Your task to perform on an android device: Open my contact list Image 0: 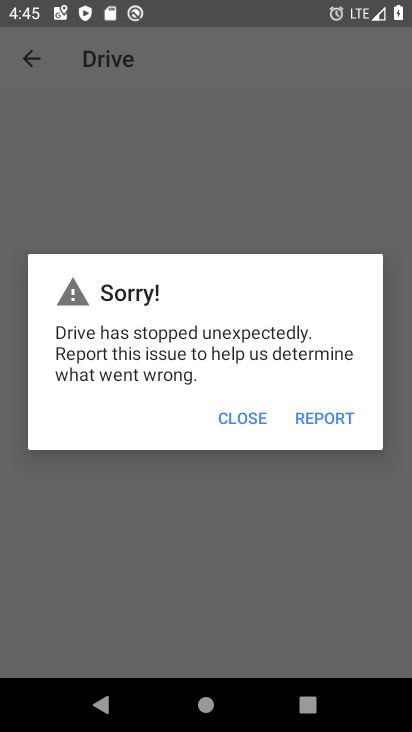
Step 0: press home button
Your task to perform on an android device: Open my contact list Image 1: 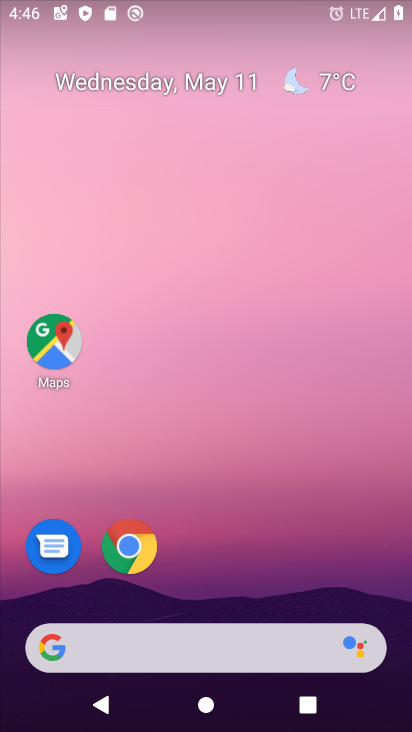
Step 1: drag from (182, 628) to (205, 7)
Your task to perform on an android device: Open my contact list Image 2: 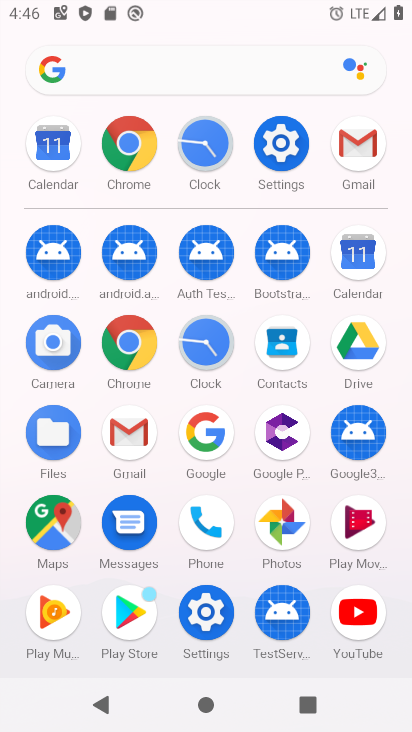
Step 2: click (205, 340)
Your task to perform on an android device: Open my contact list Image 3: 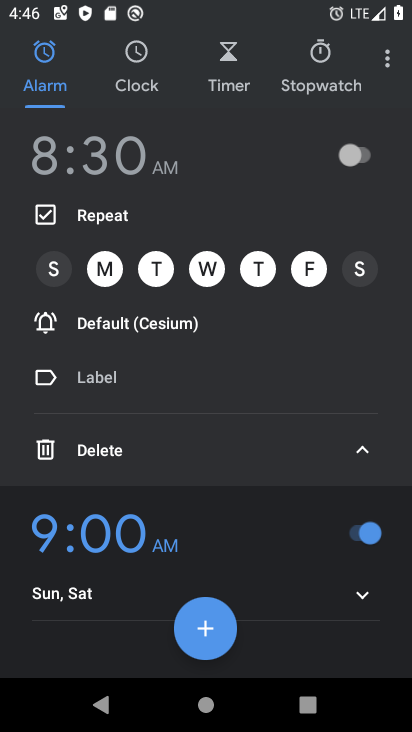
Step 3: press home button
Your task to perform on an android device: Open my contact list Image 4: 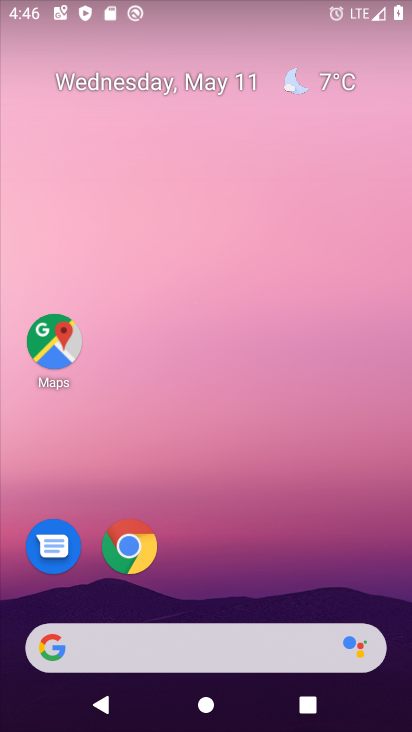
Step 4: drag from (292, 582) to (297, 0)
Your task to perform on an android device: Open my contact list Image 5: 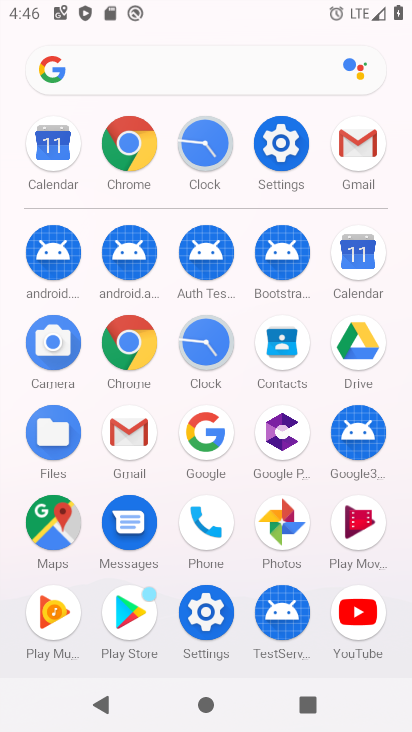
Step 5: click (280, 351)
Your task to perform on an android device: Open my contact list Image 6: 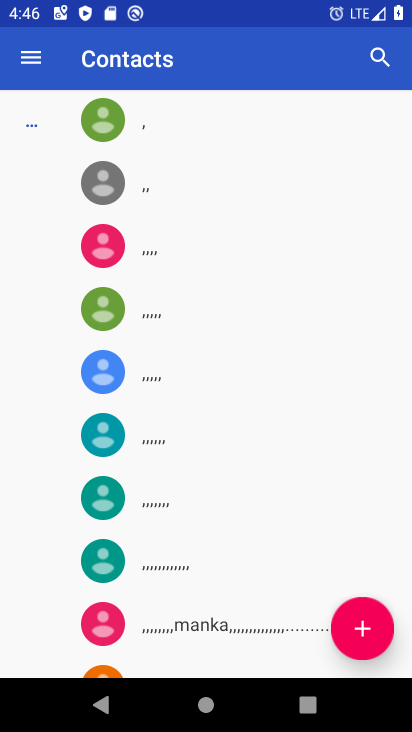
Step 6: task complete